Your task to perform on an android device: turn on notifications settings in the gmail app Image 0: 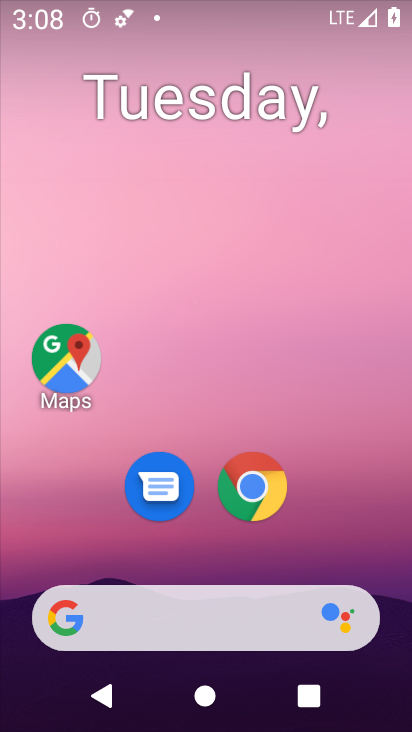
Step 0: drag from (373, 552) to (352, 104)
Your task to perform on an android device: turn on notifications settings in the gmail app Image 1: 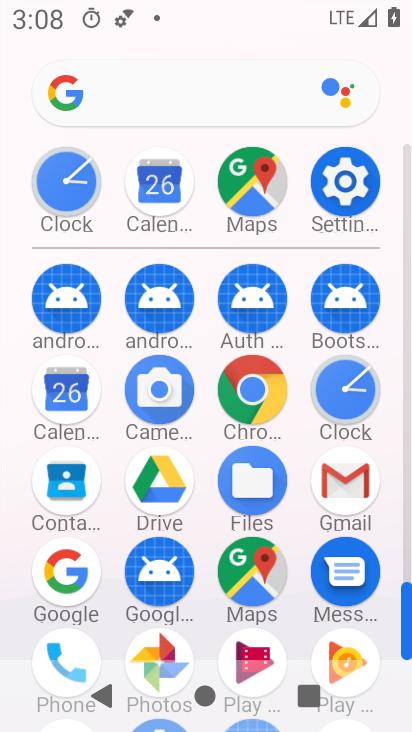
Step 1: click (344, 479)
Your task to perform on an android device: turn on notifications settings in the gmail app Image 2: 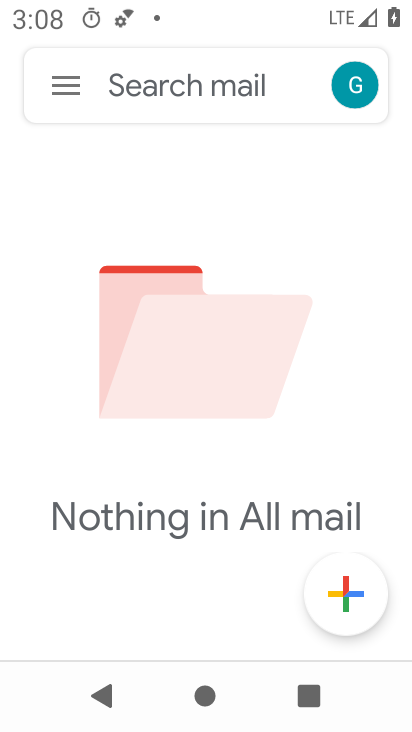
Step 2: click (71, 86)
Your task to perform on an android device: turn on notifications settings in the gmail app Image 3: 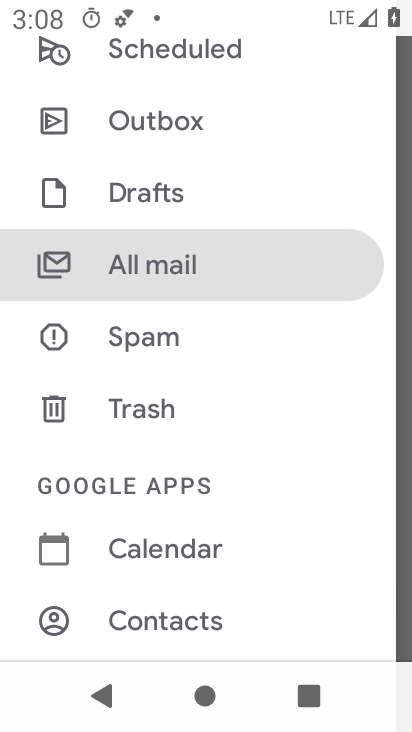
Step 3: drag from (259, 368) to (277, 464)
Your task to perform on an android device: turn on notifications settings in the gmail app Image 4: 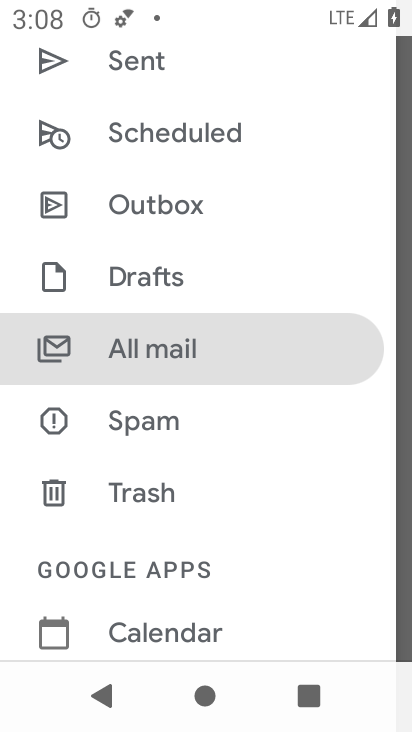
Step 4: drag from (327, 208) to (340, 372)
Your task to perform on an android device: turn on notifications settings in the gmail app Image 5: 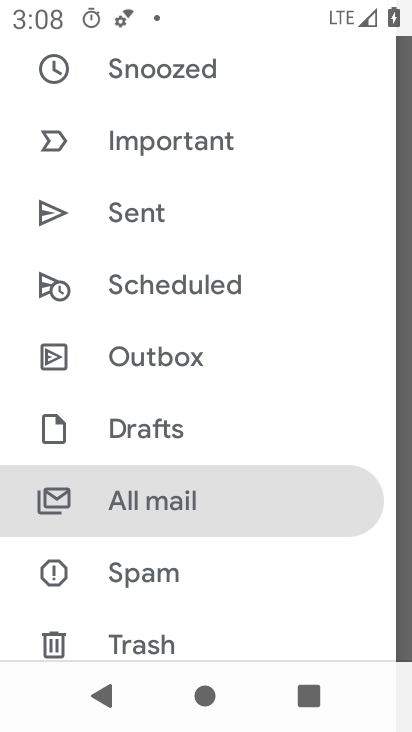
Step 5: drag from (346, 182) to (348, 353)
Your task to perform on an android device: turn on notifications settings in the gmail app Image 6: 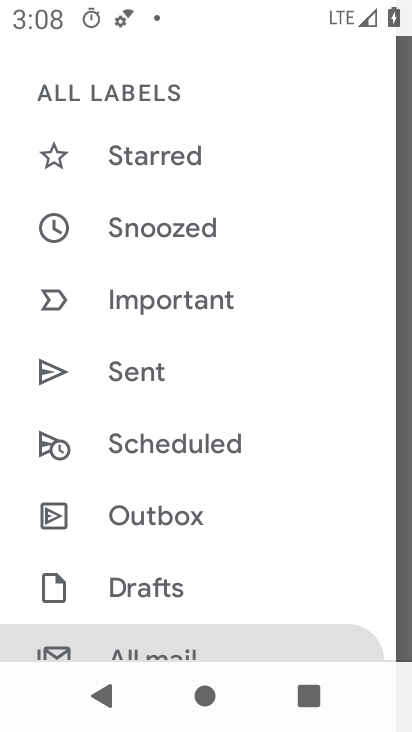
Step 6: drag from (321, 142) to (321, 348)
Your task to perform on an android device: turn on notifications settings in the gmail app Image 7: 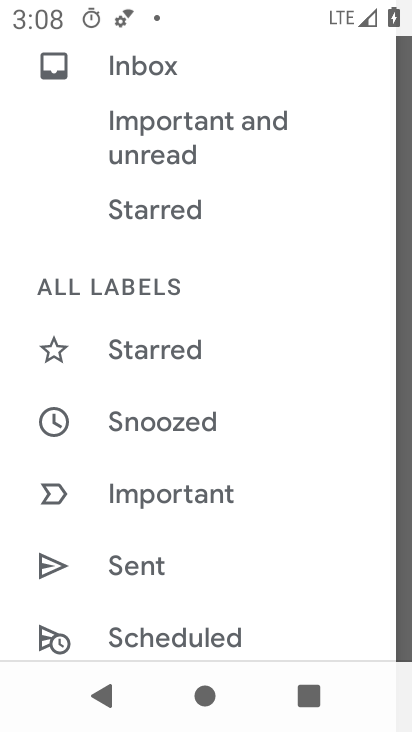
Step 7: drag from (313, 187) to (312, 336)
Your task to perform on an android device: turn on notifications settings in the gmail app Image 8: 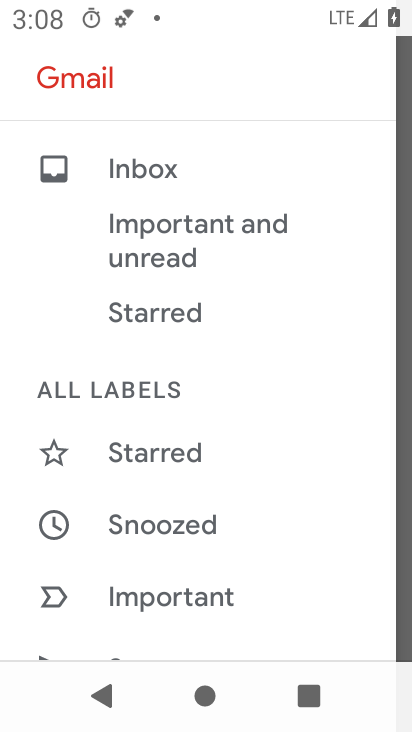
Step 8: drag from (313, 406) to (313, 276)
Your task to perform on an android device: turn on notifications settings in the gmail app Image 9: 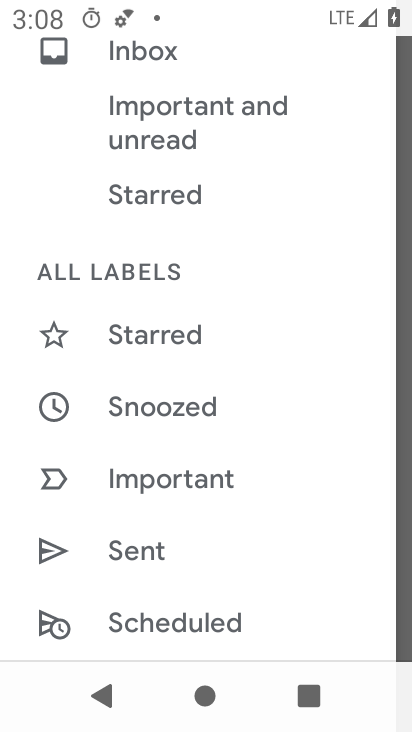
Step 9: drag from (305, 403) to (303, 283)
Your task to perform on an android device: turn on notifications settings in the gmail app Image 10: 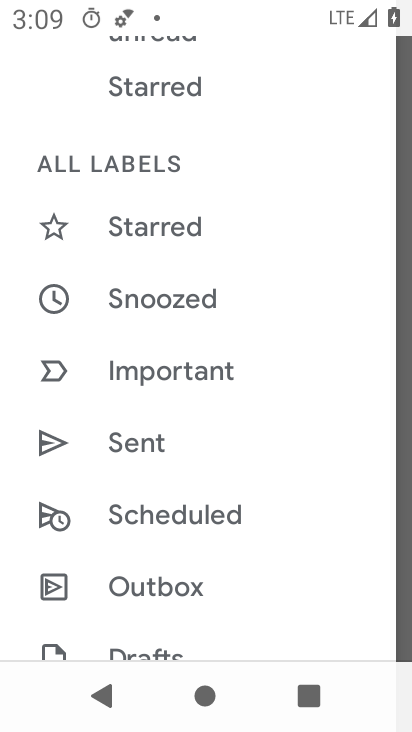
Step 10: drag from (291, 450) to (287, 319)
Your task to perform on an android device: turn on notifications settings in the gmail app Image 11: 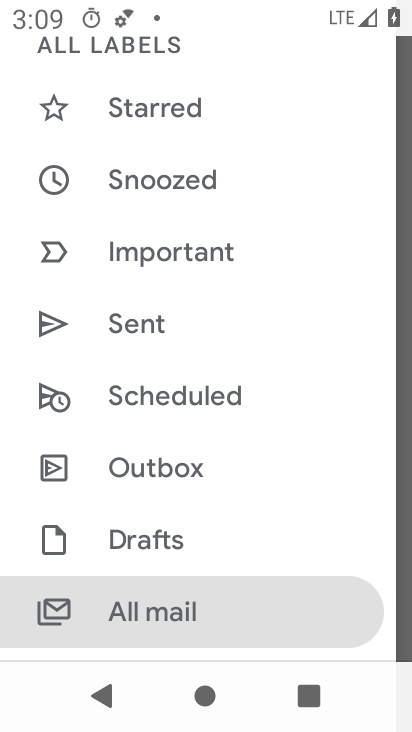
Step 11: drag from (284, 463) to (280, 275)
Your task to perform on an android device: turn on notifications settings in the gmail app Image 12: 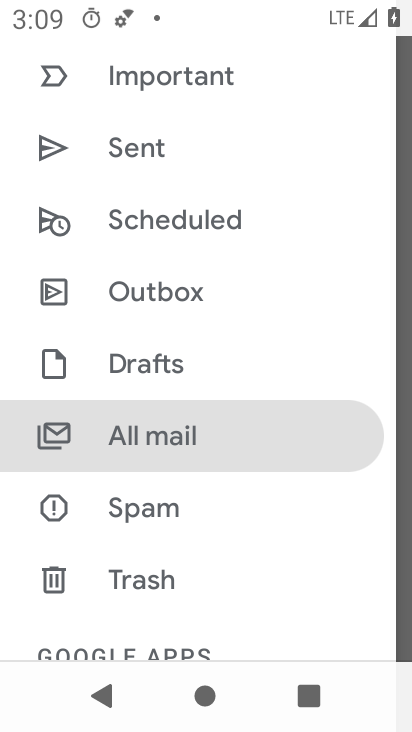
Step 12: drag from (282, 498) to (291, 295)
Your task to perform on an android device: turn on notifications settings in the gmail app Image 13: 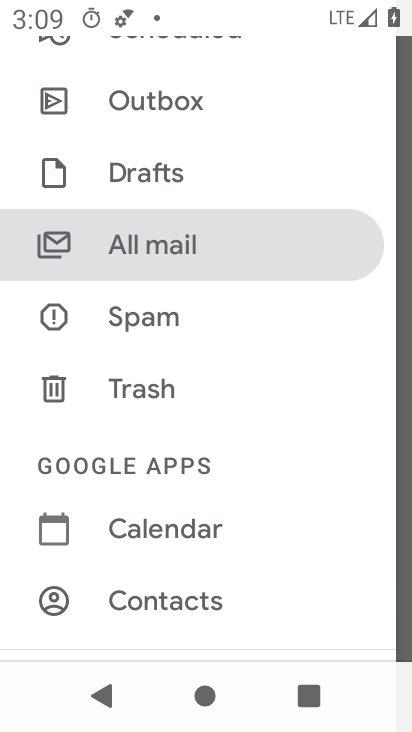
Step 13: drag from (305, 483) to (299, 326)
Your task to perform on an android device: turn on notifications settings in the gmail app Image 14: 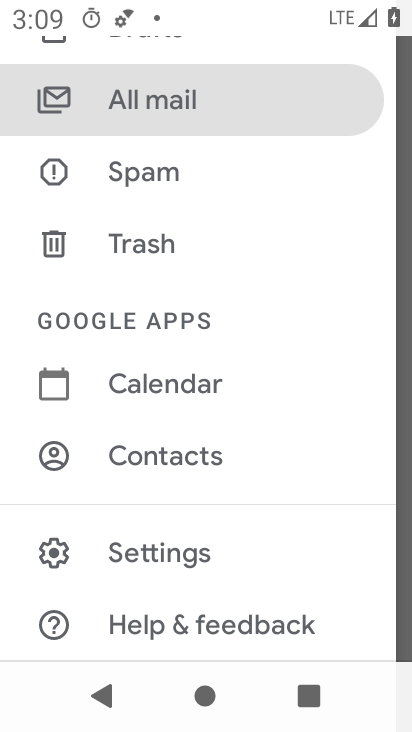
Step 14: click (266, 553)
Your task to perform on an android device: turn on notifications settings in the gmail app Image 15: 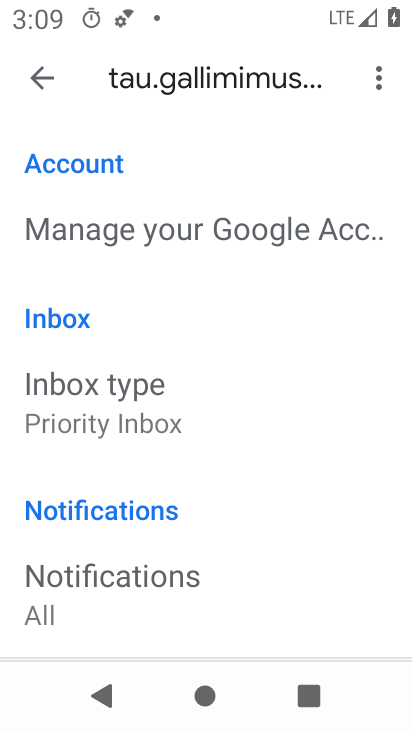
Step 15: drag from (264, 569) to (271, 457)
Your task to perform on an android device: turn on notifications settings in the gmail app Image 16: 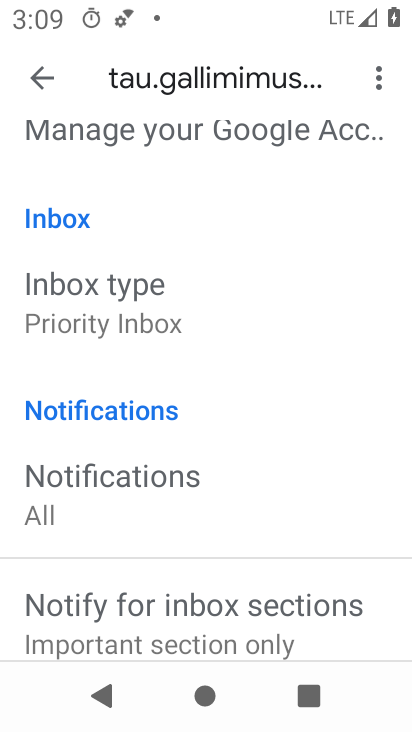
Step 16: drag from (294, 530) to (296, 469)
Your task to perform on an android device: turn on notifications settings in the gmail app Image 17: 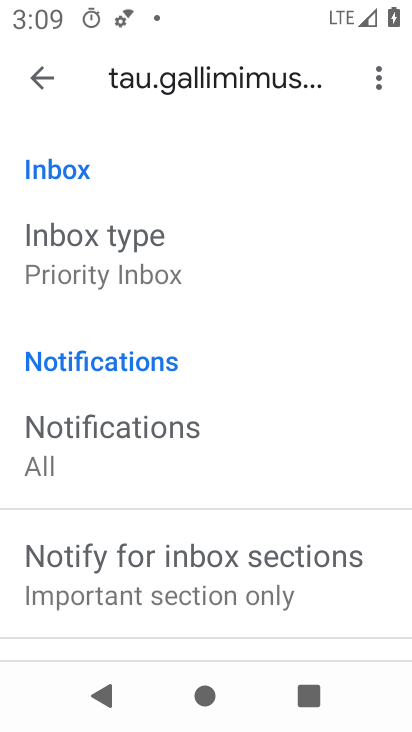
Step 17: drag from (298, 555) to (296, 444)
Your task to perform on an android device: turn on notifications settings in the gmail app Image 18: 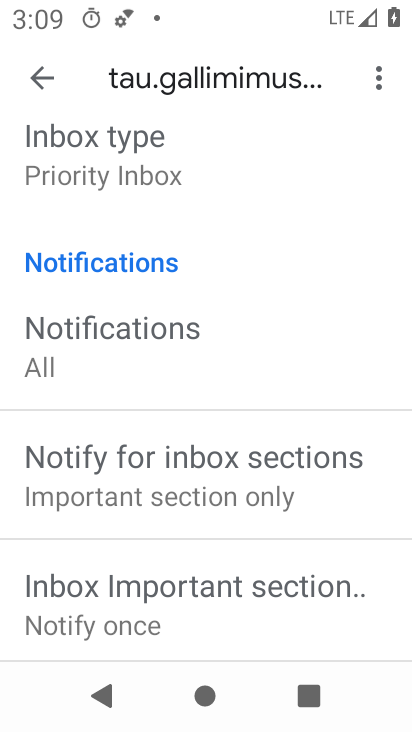
Step 18: drag from (271, 546) to (271, 426)
Your task to perform on an android device: turn on notifications settings in the gmail app Image 19: 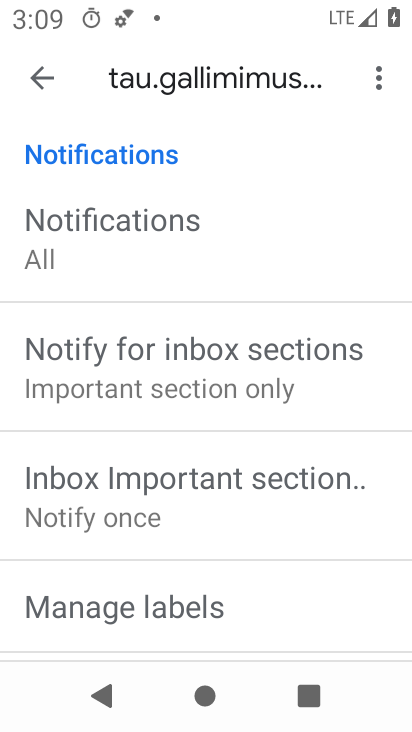
Step 19: drag from (257, 546) to (278, 349)
Your task to perform on an android device: turn on notifications settings in the gmail app Image 20: 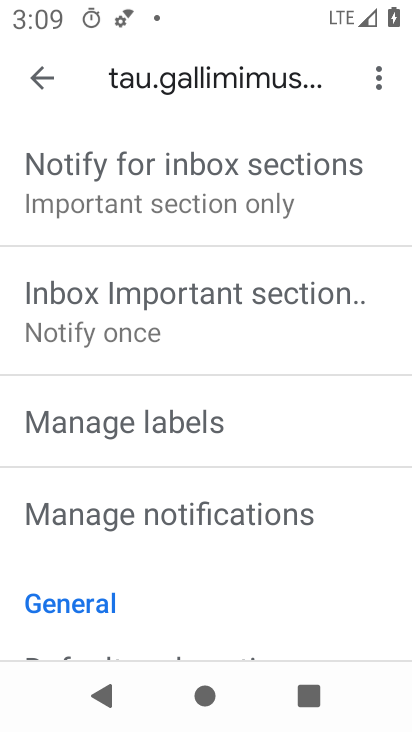
Step 20: click (307, 517)
Your task to perform on an android device: turn on notifications settings in the gmail app Image 21: 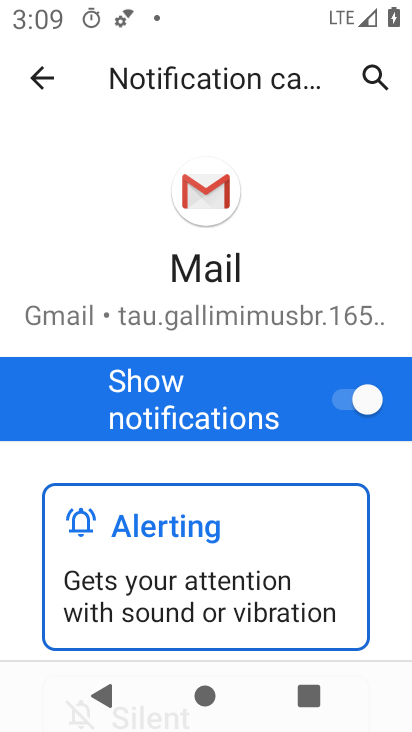
Step 21: task complete